Your task to perform on an android device: turn on wifi Image 0: 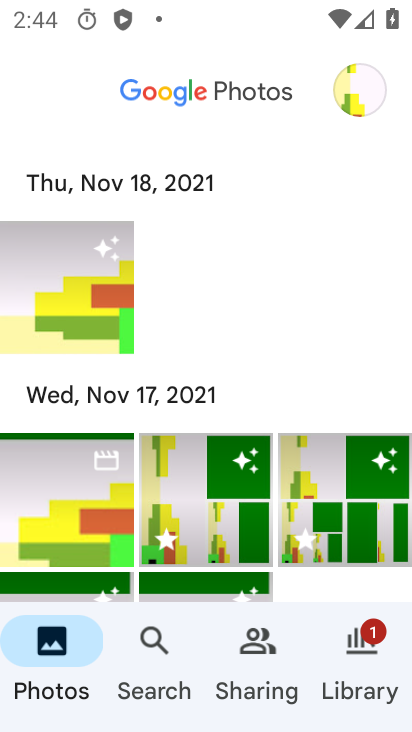
Step 0: press home button
Your task to perform on an android device: turn on wifi Image 1: 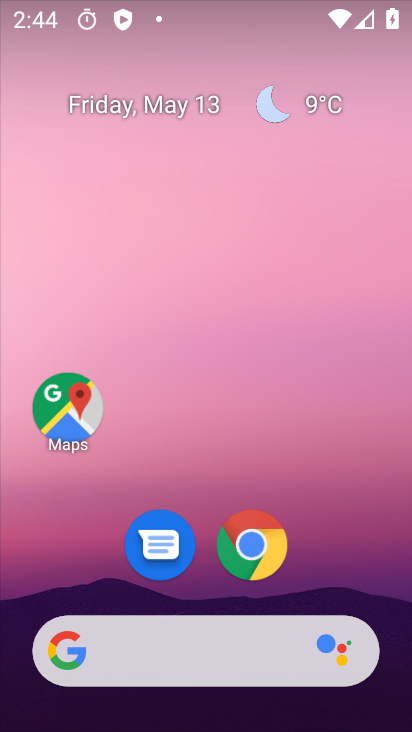
Step 1: task complete